Your task to perform on an android device: turn off data saver in the chrome app Image 0: 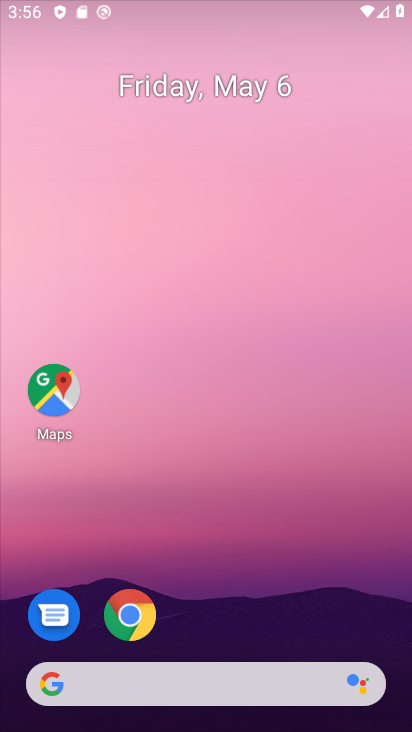
Step 0: drag from (232, 648) to (180, 64)
Your task to perform on an android device: turn off data saver in the chrome app Image 1: 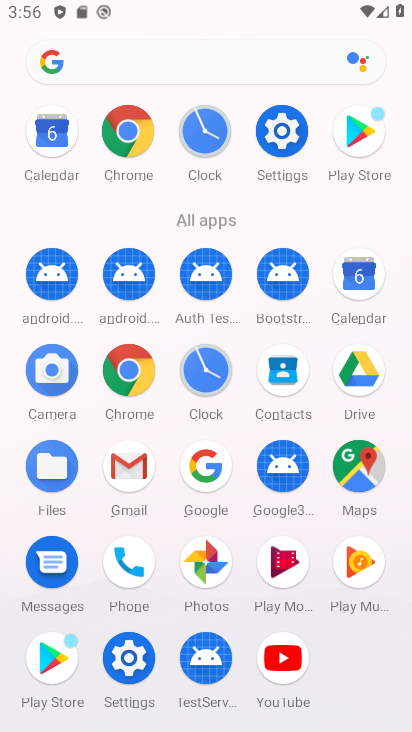
Step 1: click (136, 376)
Your task to perform on an android device: turn off data saver in the chrome app Image 2: 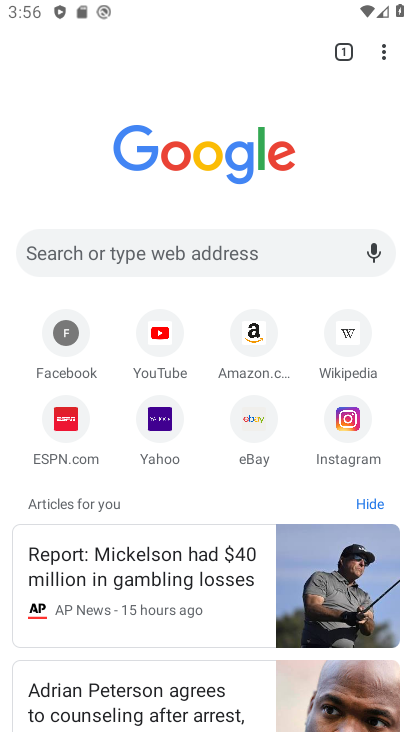
Step 2: click (384, 65)
Your task to perform on an android device: turn off data saver in the chrome app Image 3: 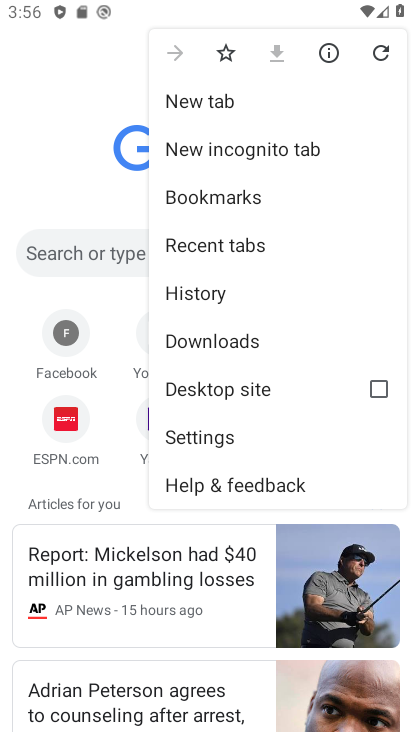
Step 3: click (207, 430)
Your task to perform on an android device: turn off data saver in the chrome app Image 4: 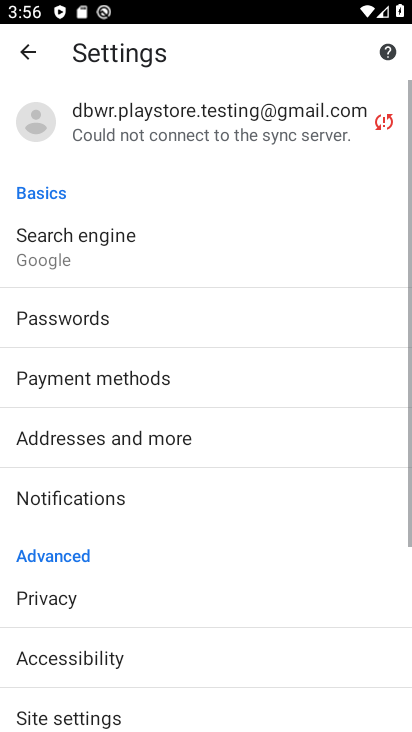
Step 4: drag from (255, 620) to (171, 94)
Your task to perform on an android device: turn off data saver in the chrome app Image 5: 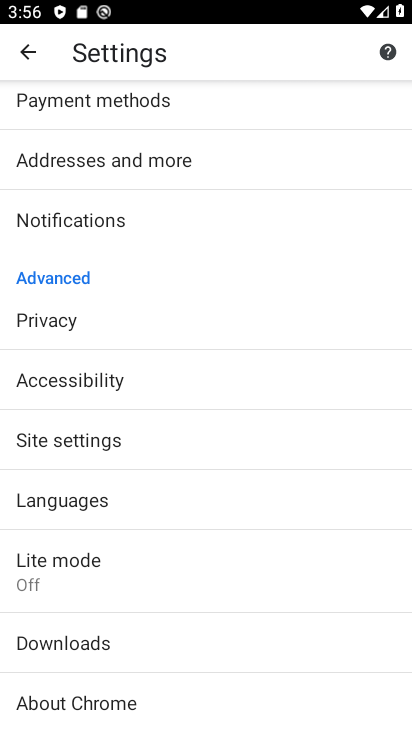
Step 5: click (82, 565)
Your task to perform on an android device: turn off data saver in the chrome app Image 6: 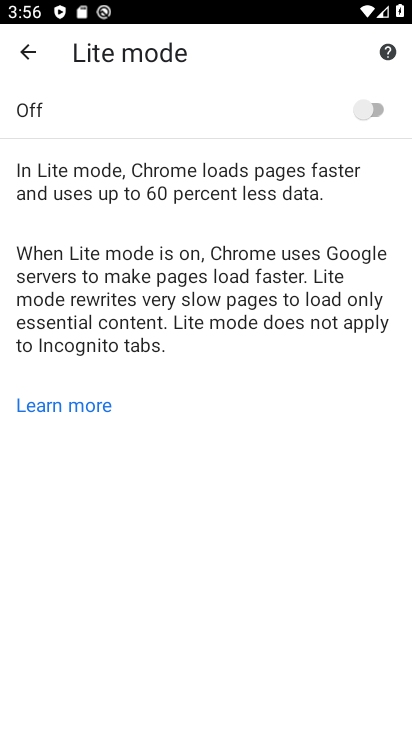
Step 6: task complete